Your task to perform on an android device: Open notification settings Image 0: 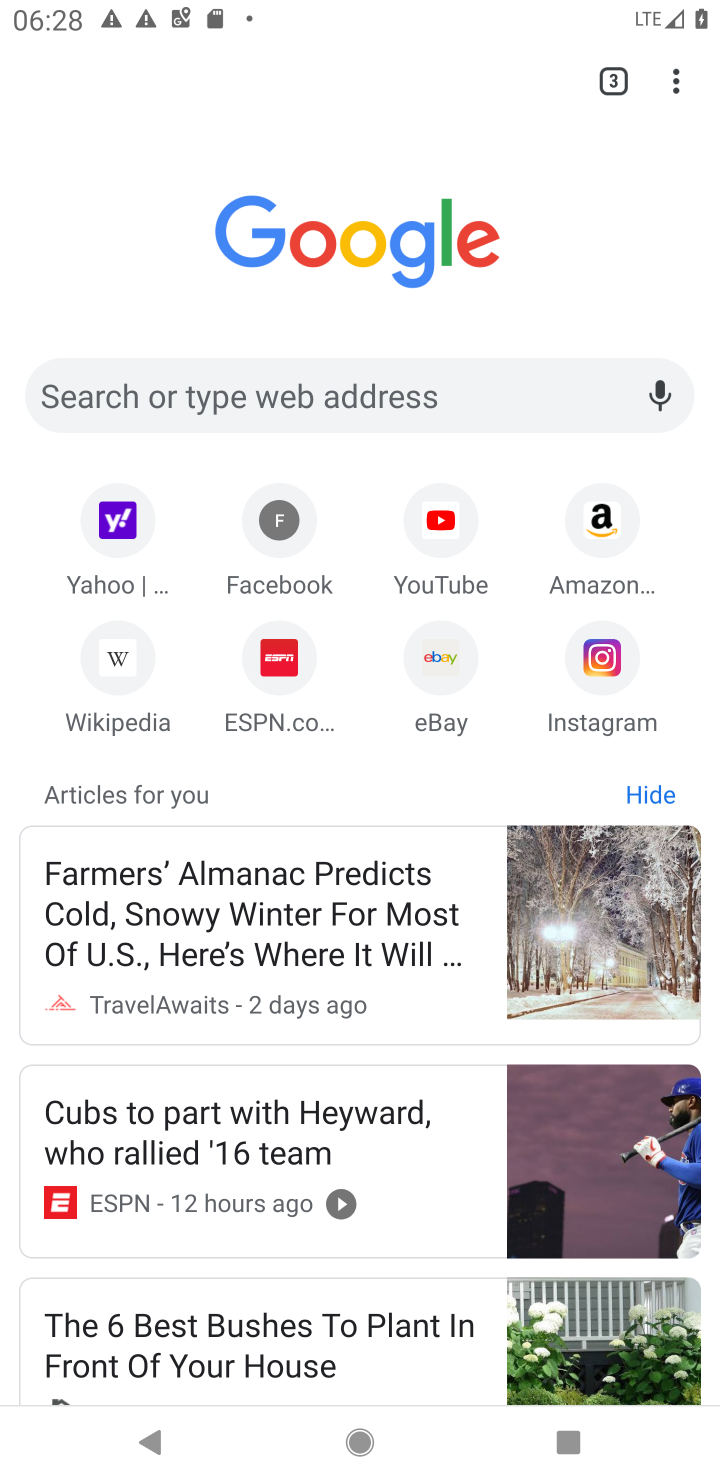
Step 0: press home button
Your task to perform on an android device: Open notification settings Image 1: 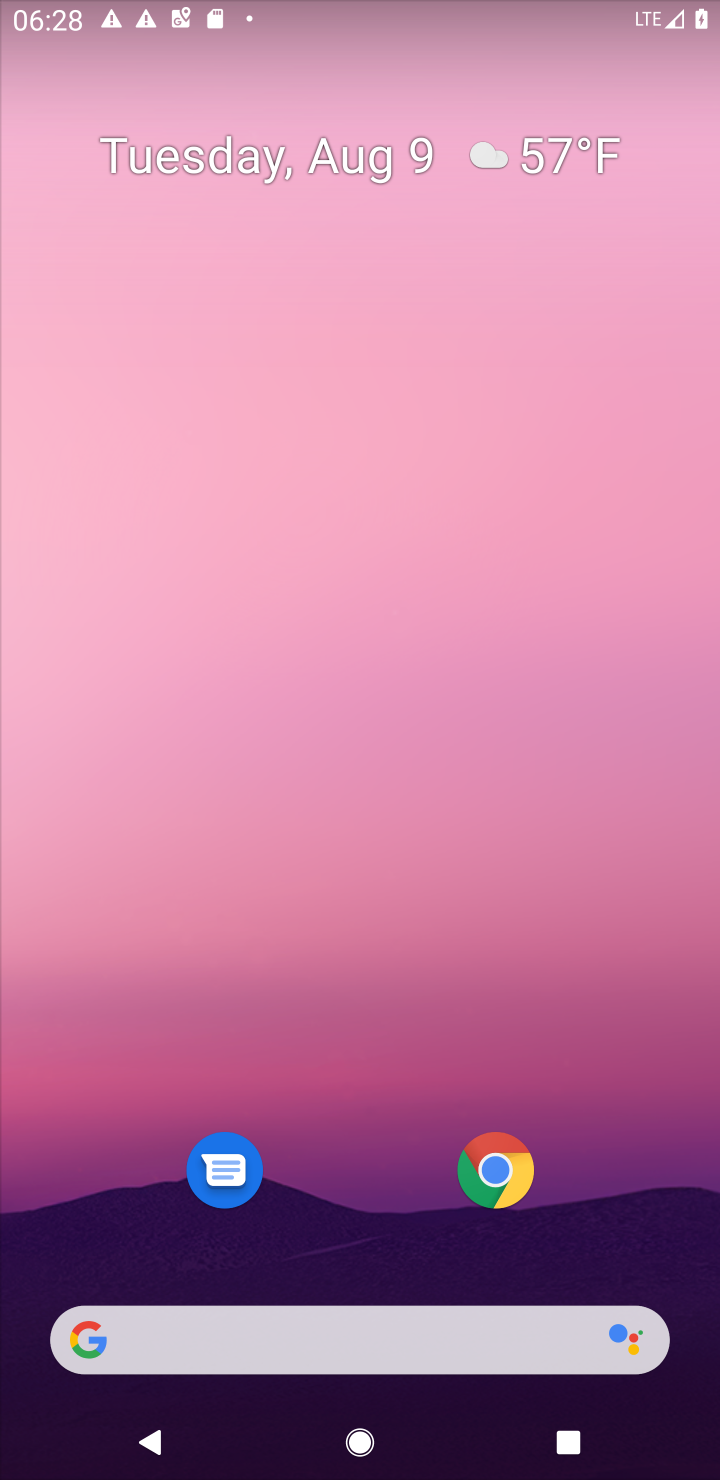
Step 1: drag from (379, 521) to (369, 216)
Your task to perform on an android device: Open notification settings Image 2: 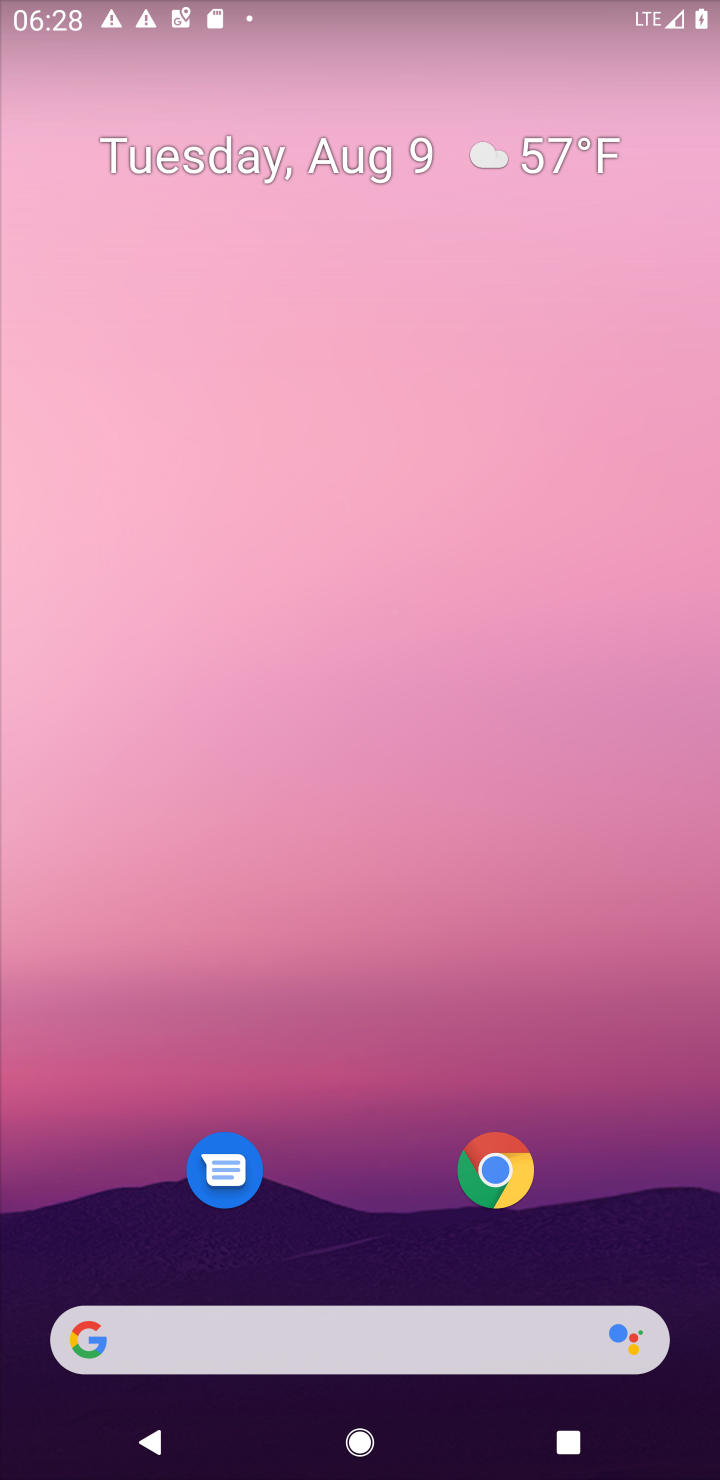
Step 2: drag from (354, 1255) to (298, 160)
Your task to perform on an android device: Open notification settings Image 3: 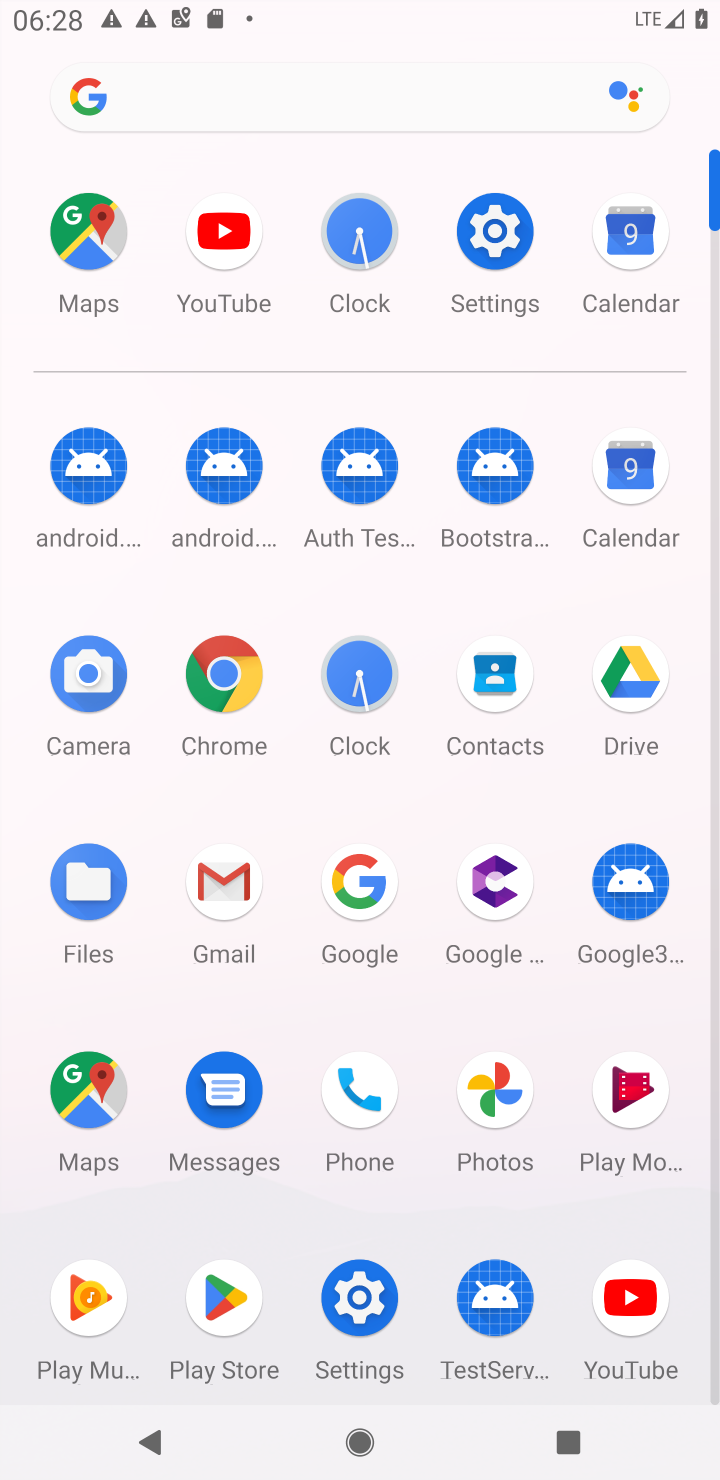
Step 3: click (484, 236)
Your task to perform on an android device: Open notification settings Image 4: 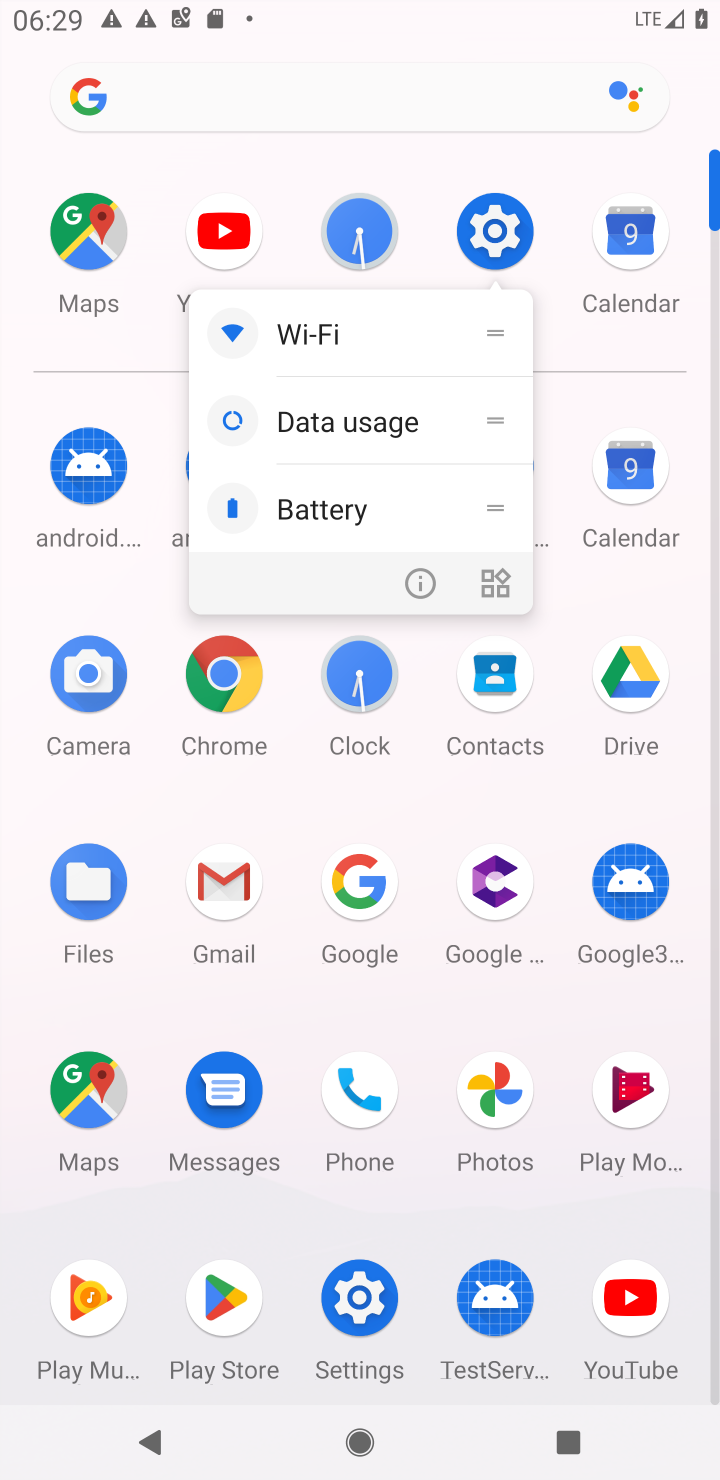
Step 4: click (484, 241)
Your task to perform on an android device: Open notification settings Image 5: 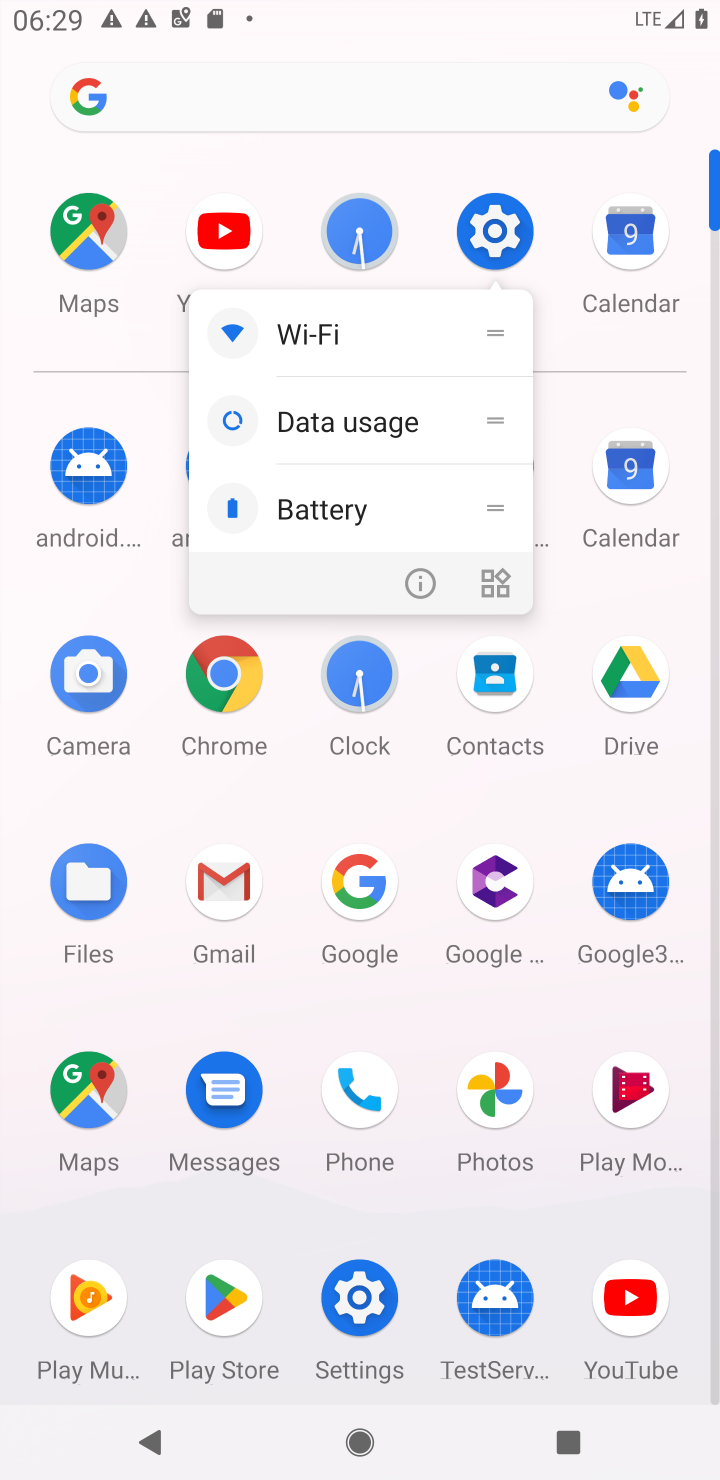
Step 5: click (484, 241)
Your task to perform on an android device: Open notification settings Image 6: 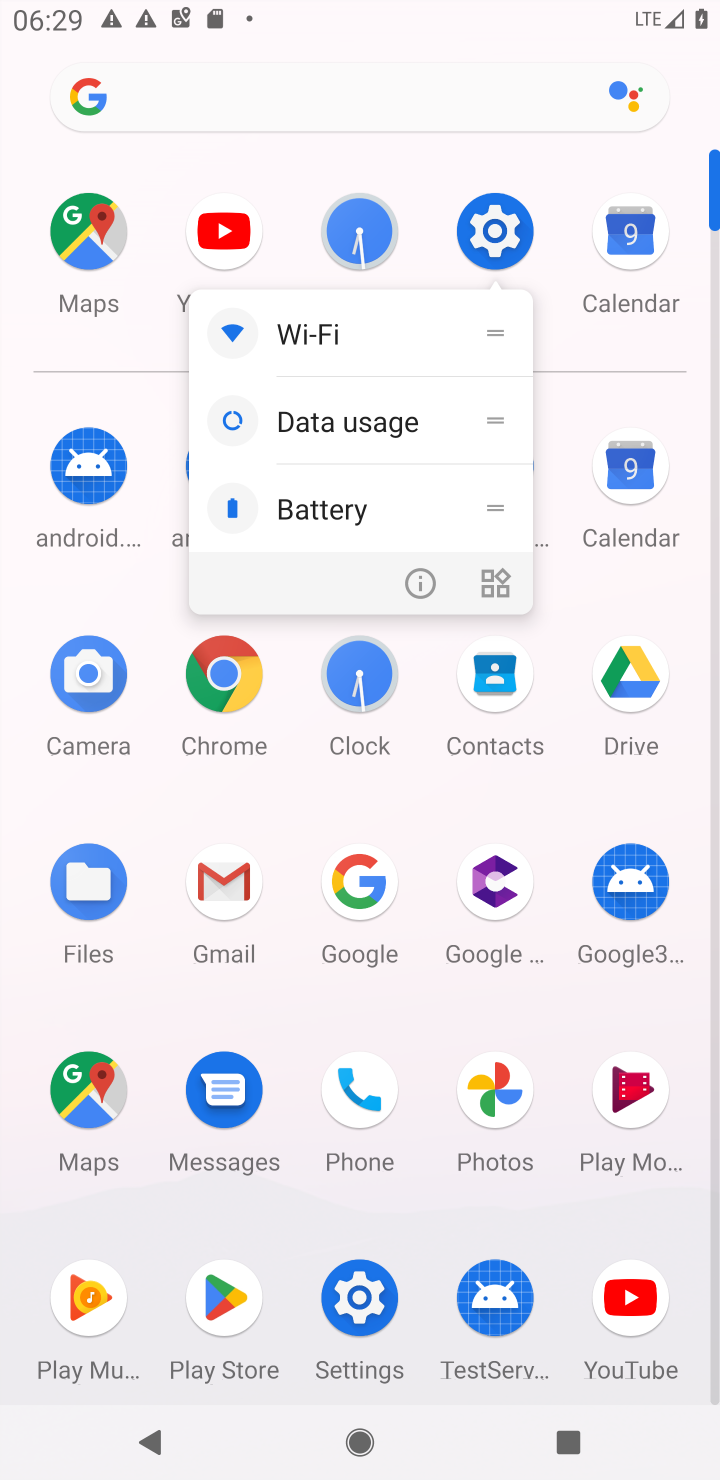
Step 6: click (484, 241)
Your task to perform on an android device: Open notification settings Image 7: 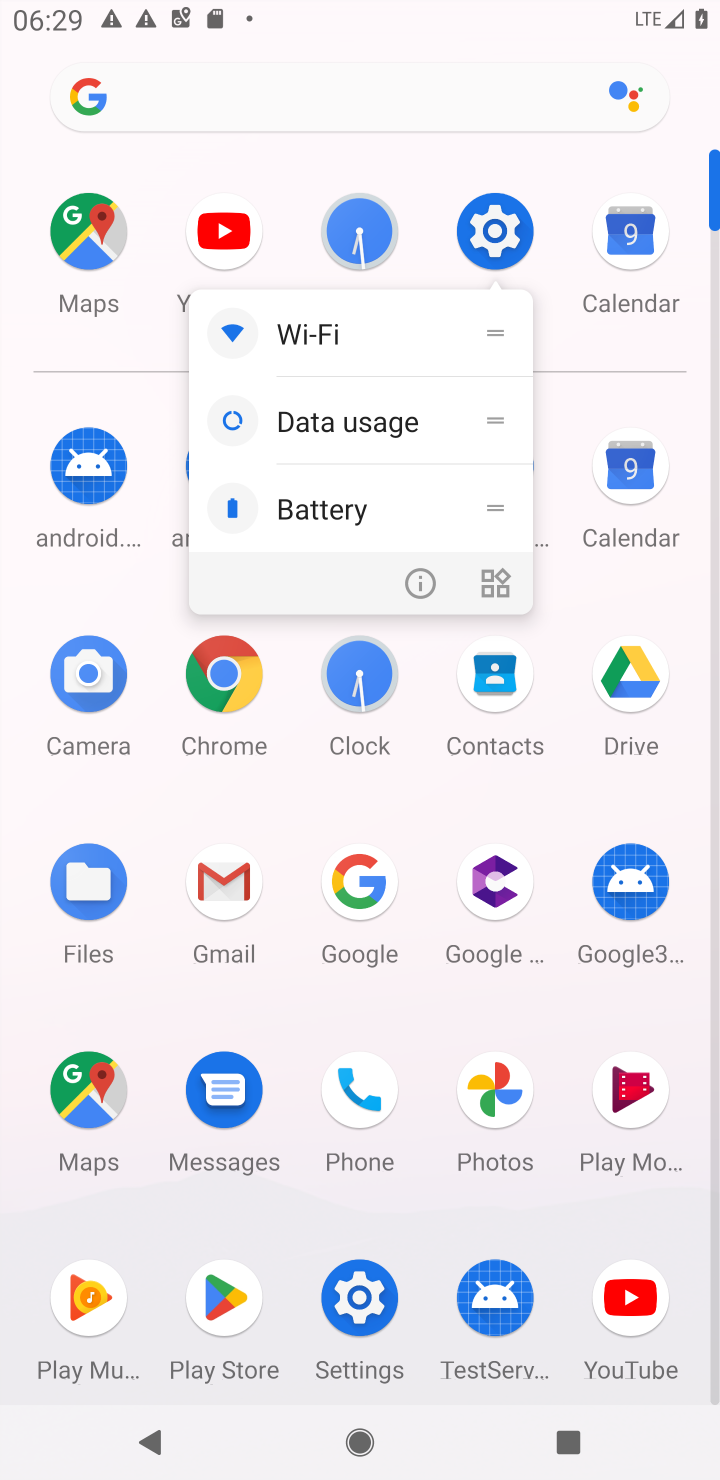
Step 7: click (484, 241)
Your task to perform on an android device: Open notification settings Image 8: 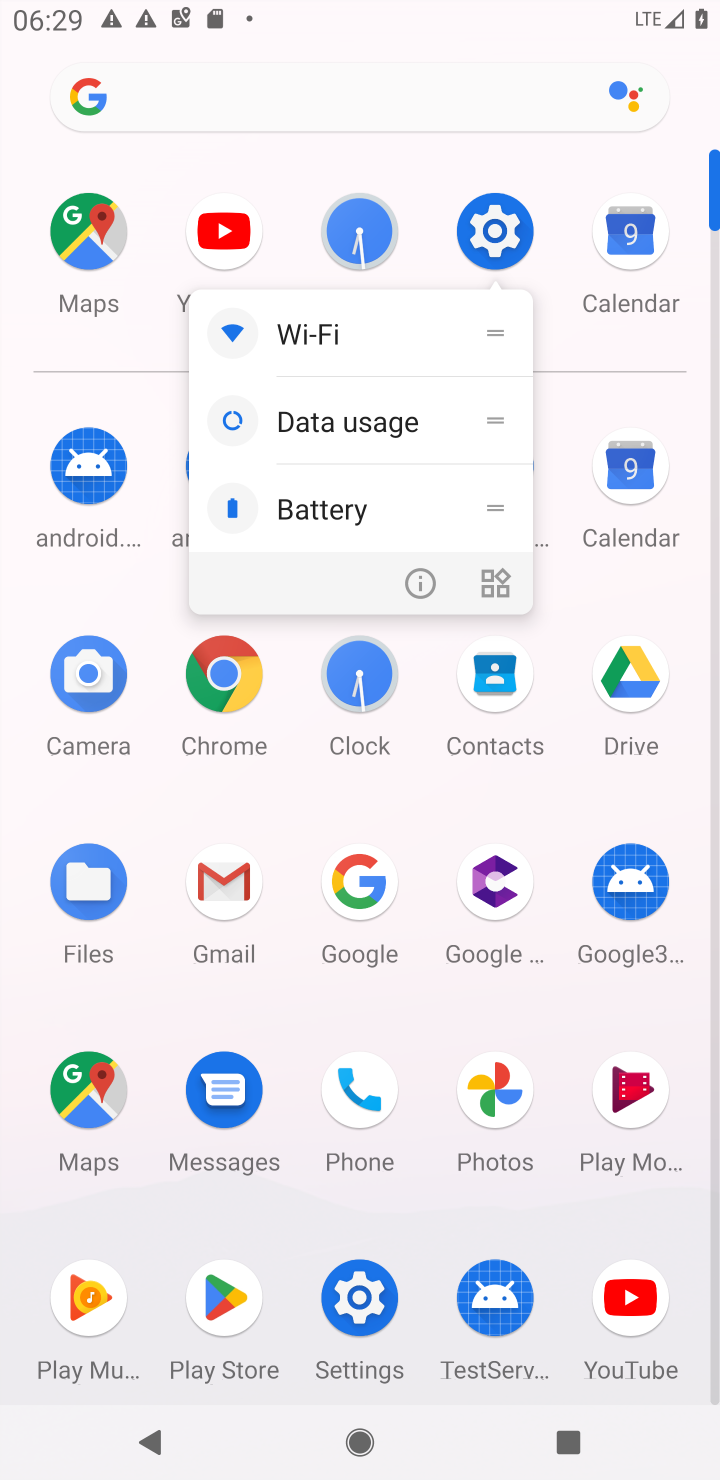
Step 8: click (486, 235)
Your task to perform on an android device: Open notification settings Image 9: 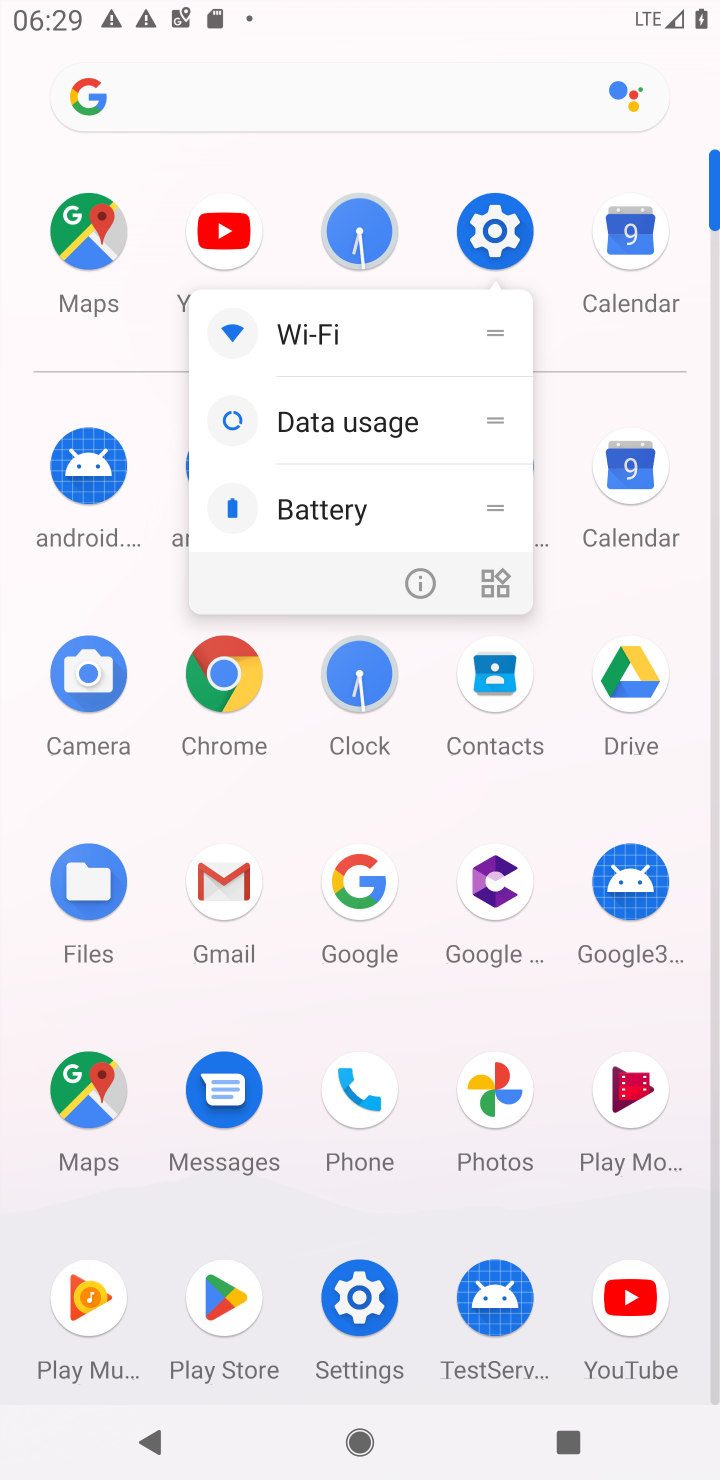
Step 9: click (486, 235)
Your task to perform on an android device: Open notification settings Image 10: 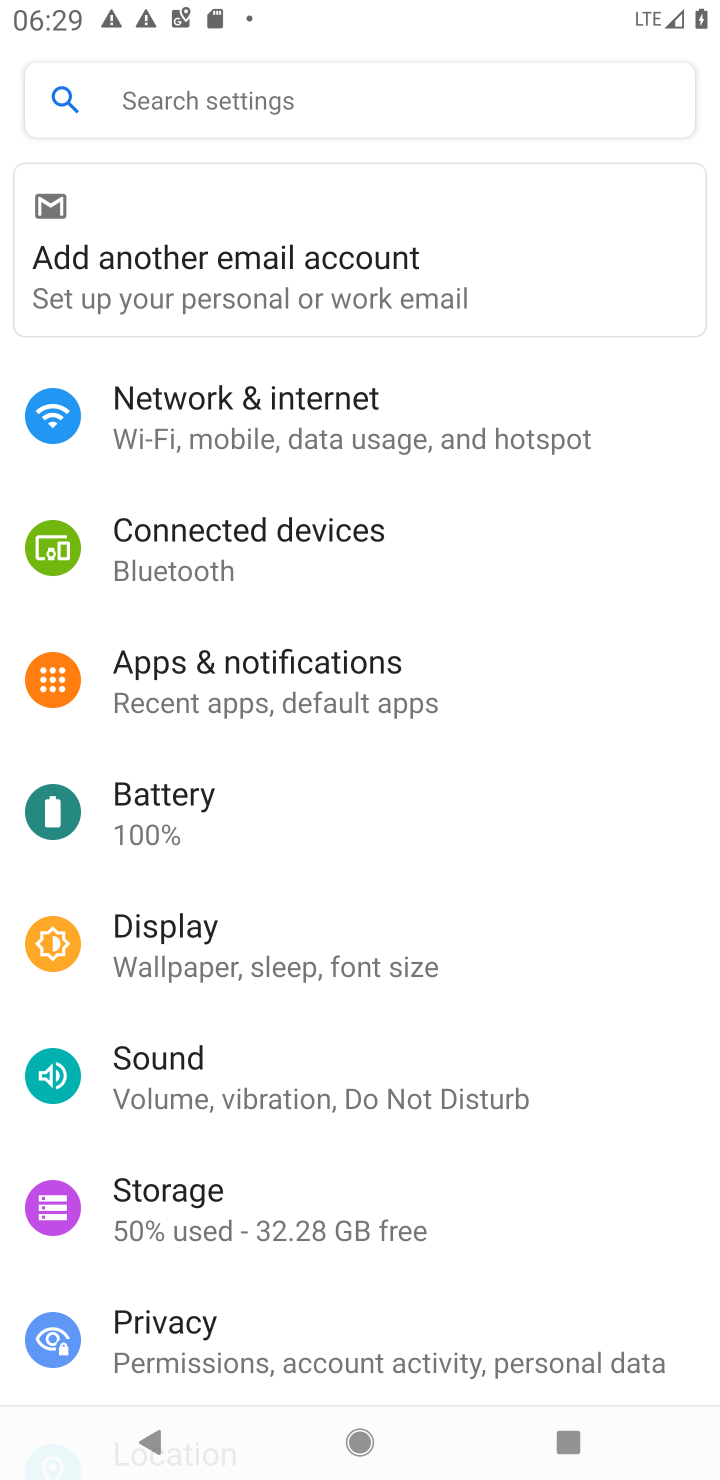
Step 10: click (208, 682)
Your task to perform on an android device: Open notification settings Image 11: 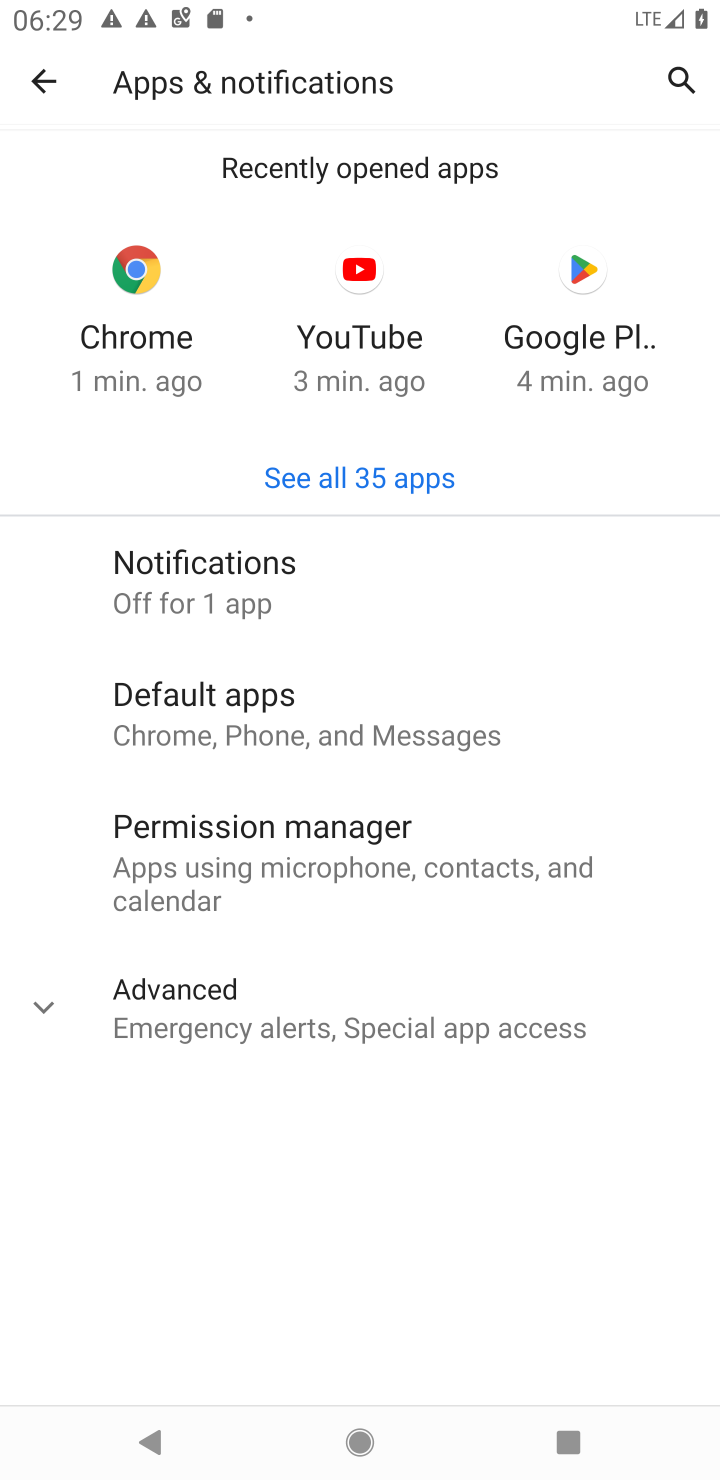
Step 11: click (210, 571)
Your task to perform on an android device: Open notification settings Image 12: 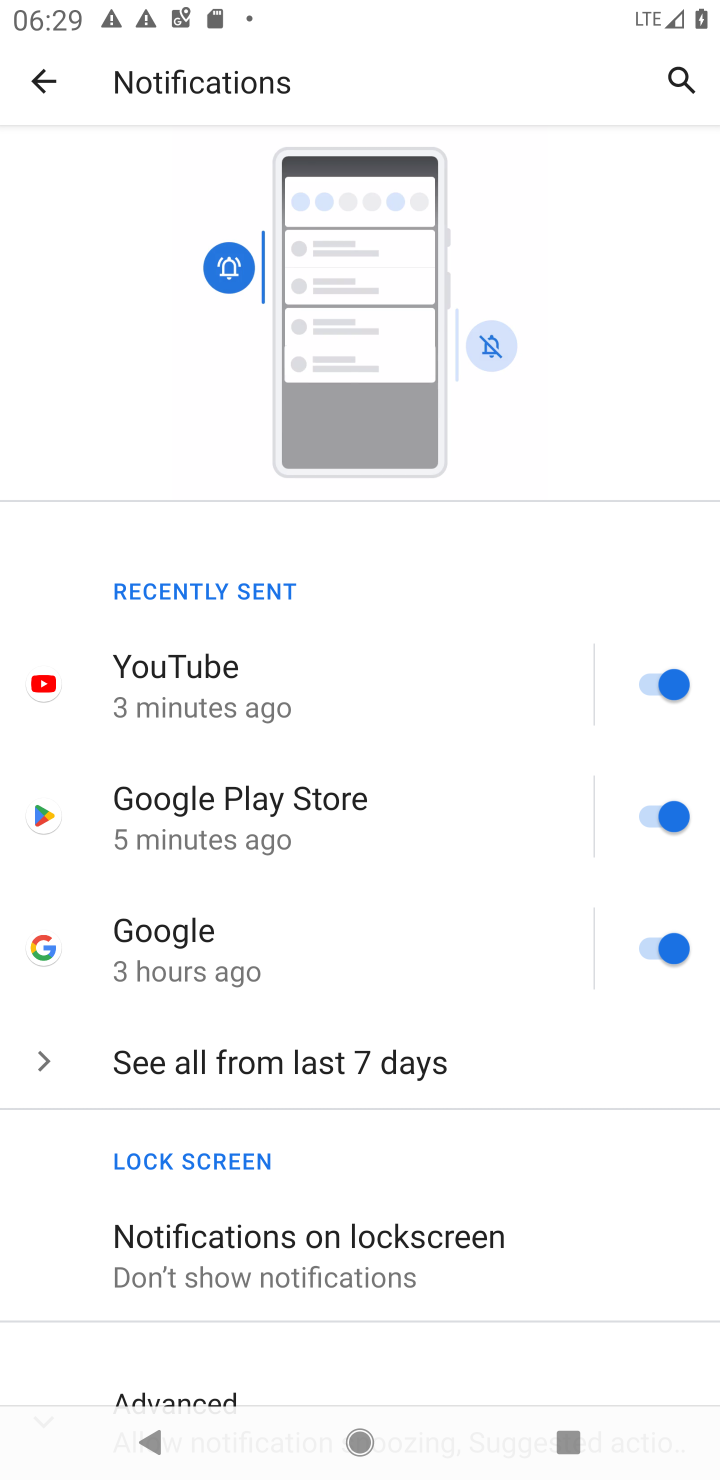
Step 12: task complete